Your task to perform on an android device: find photos in the google photos app Image 0: 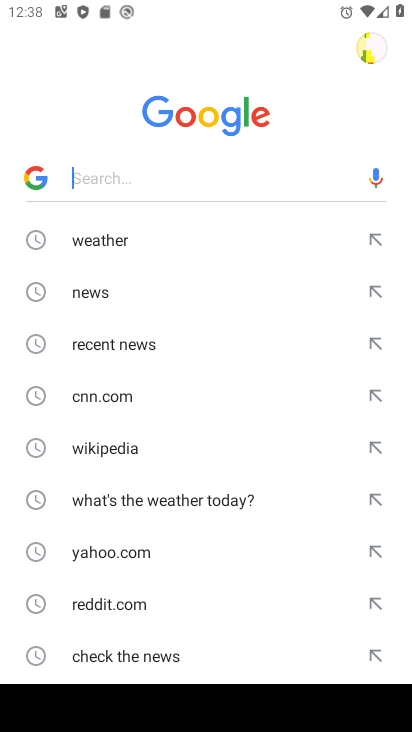
Step 0: press back button
Your task to perform on an android device: find photos in the google photos app Image 1: 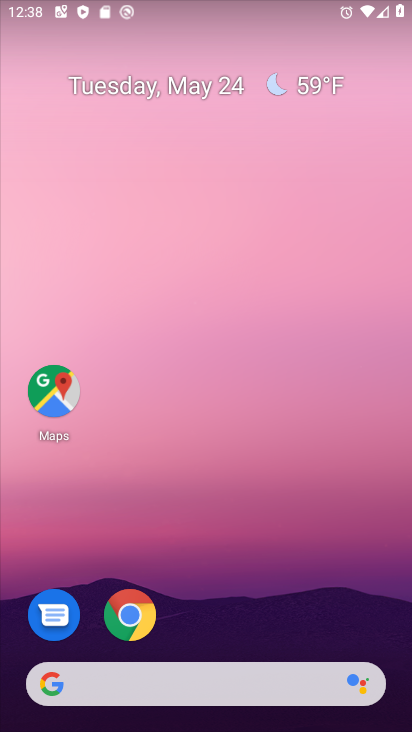
Step 1: drag from (278, 534) to (246, 47)
Your task to perform on an android device: find photos in the google photos app Image 2: 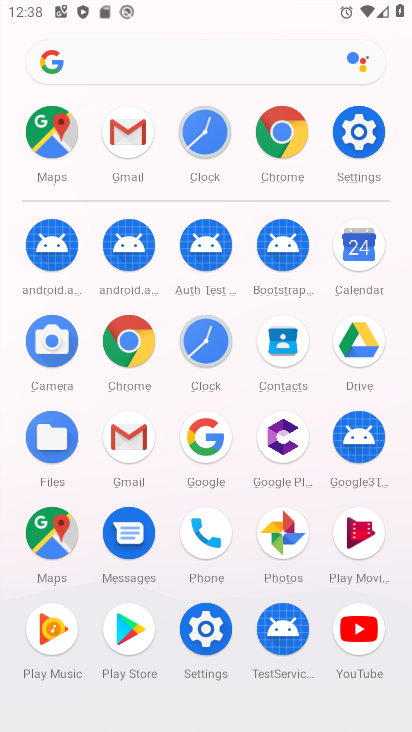
Step 2: drag from (5, 600) to (21, 244)
Your task to perform on an android device: find photos in the google photos app Image 3: 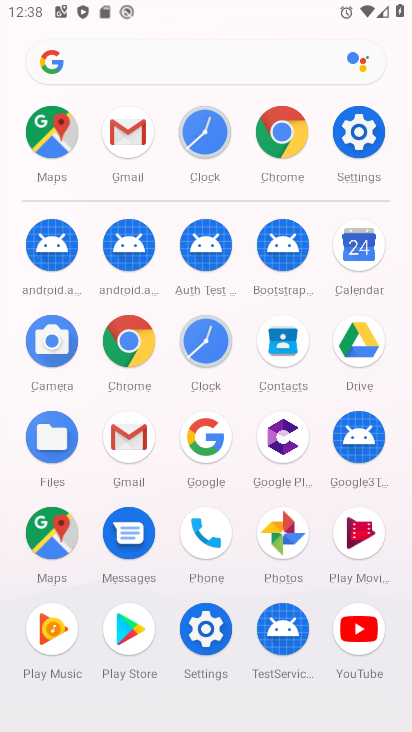
Step 3: click (282, 531)
Your task to perform on an android device: find photos in the google photos app Image 4: 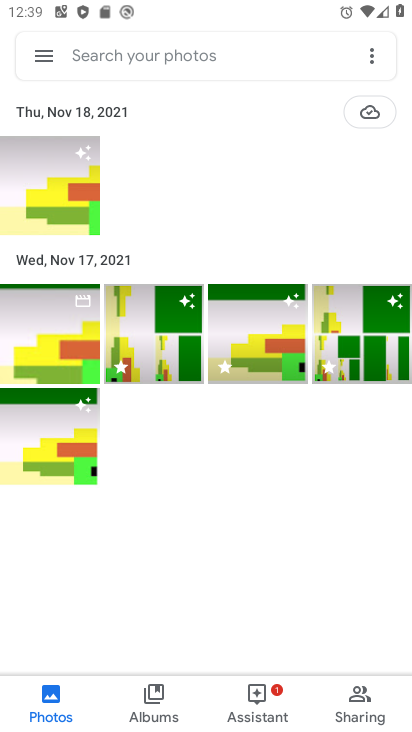
Step 4: task complete